Your task to perform on an android device: Show the shopping cart on ebay. Search for "dell xps" on ebay, select the first entry, add it to the cart, then select checkout. Image 0: 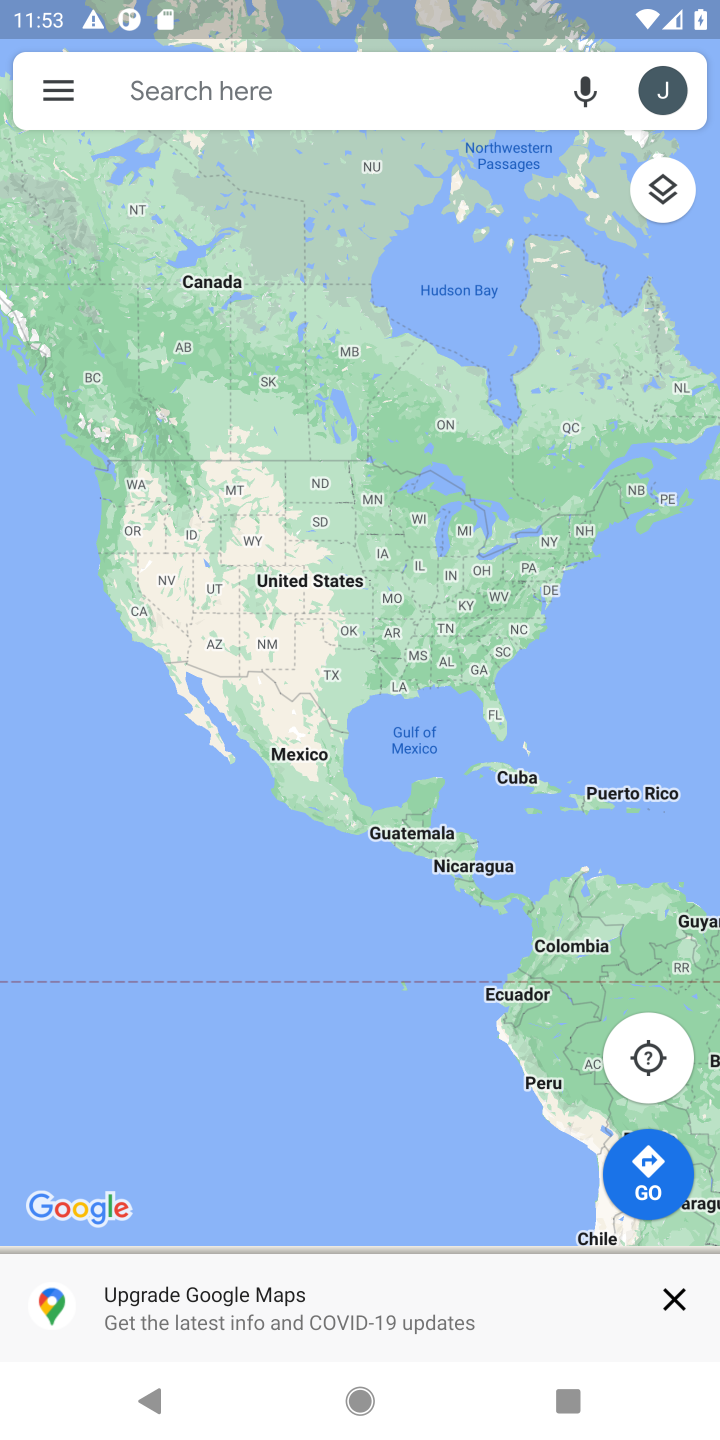
Step 0: press home button
Your task to perform on an android device: Show the shopping cart on ebay. Search for "dell xps" on ebay, select the first entry, add it to the cart, then select checkout. Image 1: 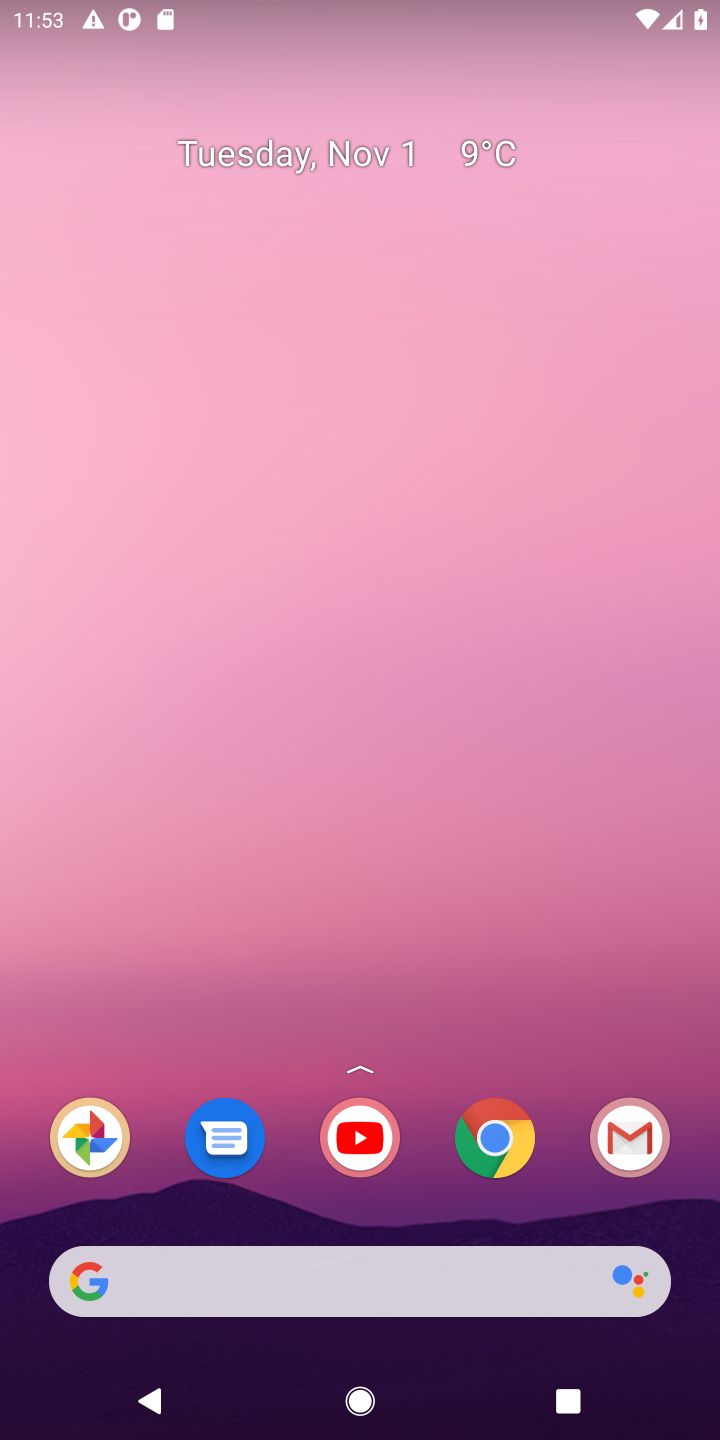
Step 1: click (399, 1279)
Your task to perform on an android device: Show the shopping cart on ebay. Search for "dell xps" on ebay, select the first entry, add it to the cart, then select checkout. Image 2: 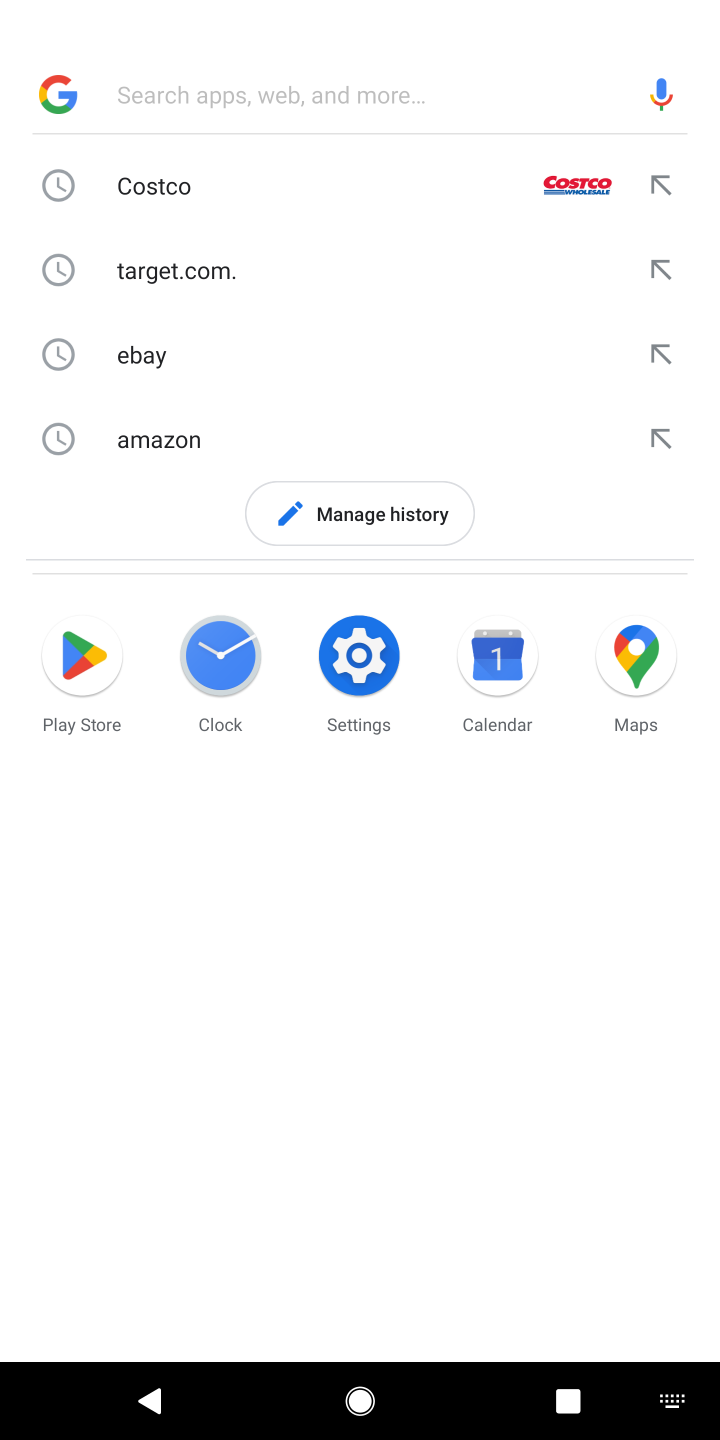
Step 2: drag from (666, 1293) to (680, 1389)
Your task to perform on an android device: Show the shopping cart on ebay. Search for "dell xps" on ebay, select the first entry, add it to the cart, then select checkout. Image 3: 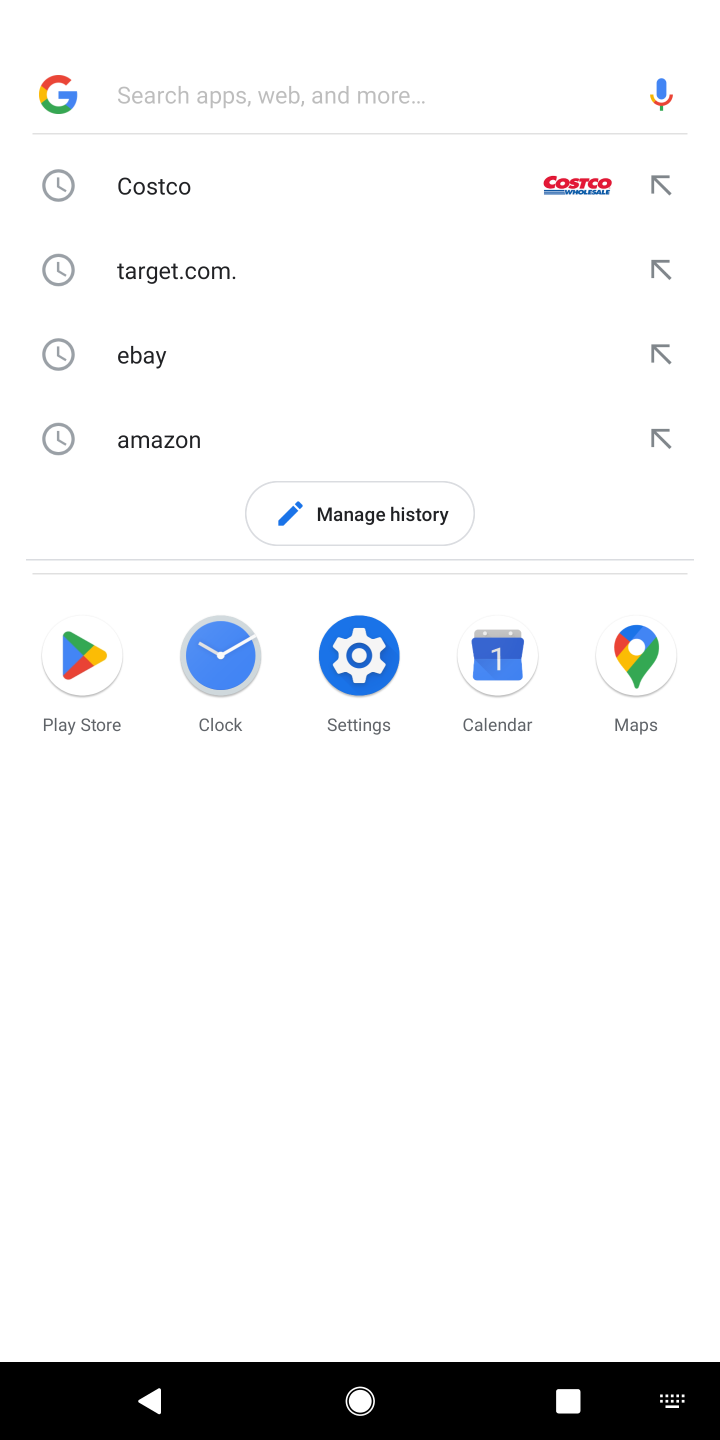
Step 3: click (139, 351)
Your task to perform on an android device: Show the shopping cart on ebay. Search for "dell xps" on ebay, select the first entry, add it to the cart, then select checkout. Image 4: 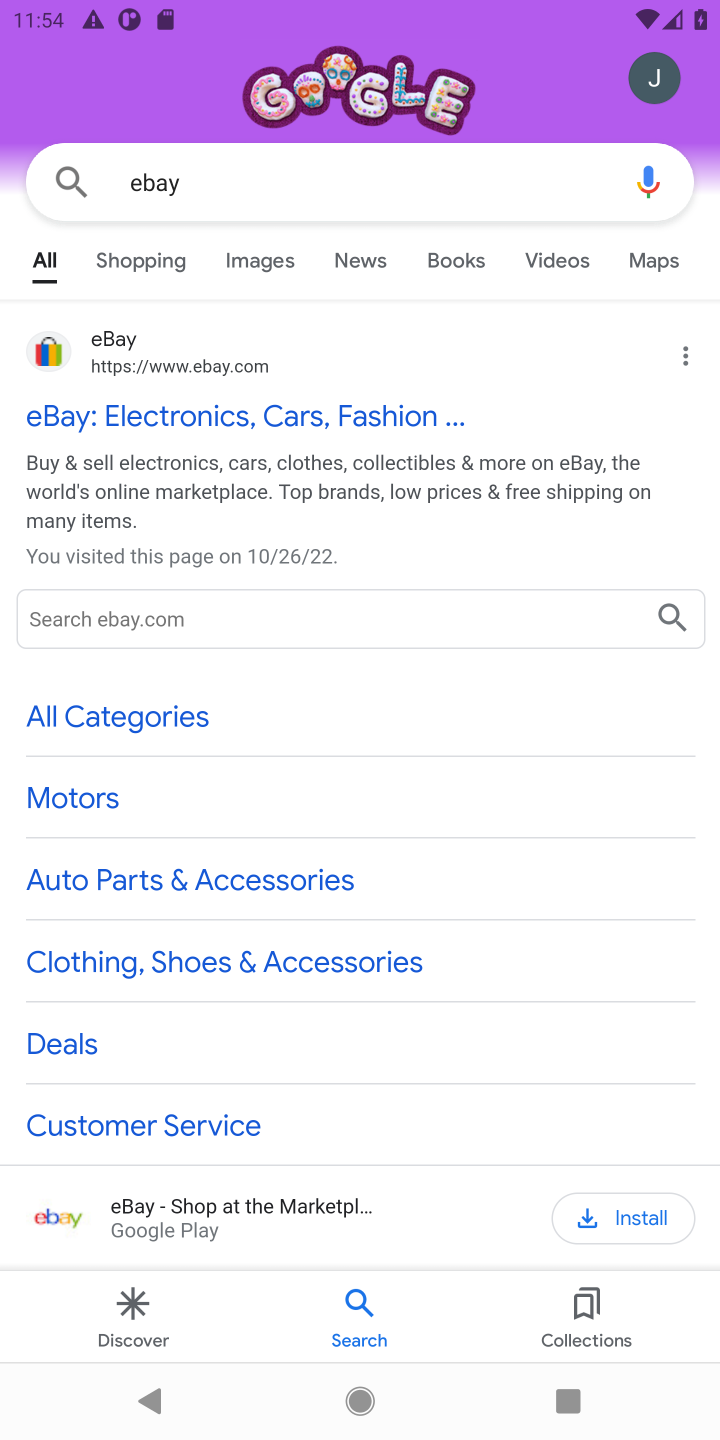
Step 4: click (166, 425)
Your task to perform on an android device: Show the shopping cart on ebay. Search for "dell xps" on ebay, select the first entry, add it to the cart, then select checkout. Image 5: 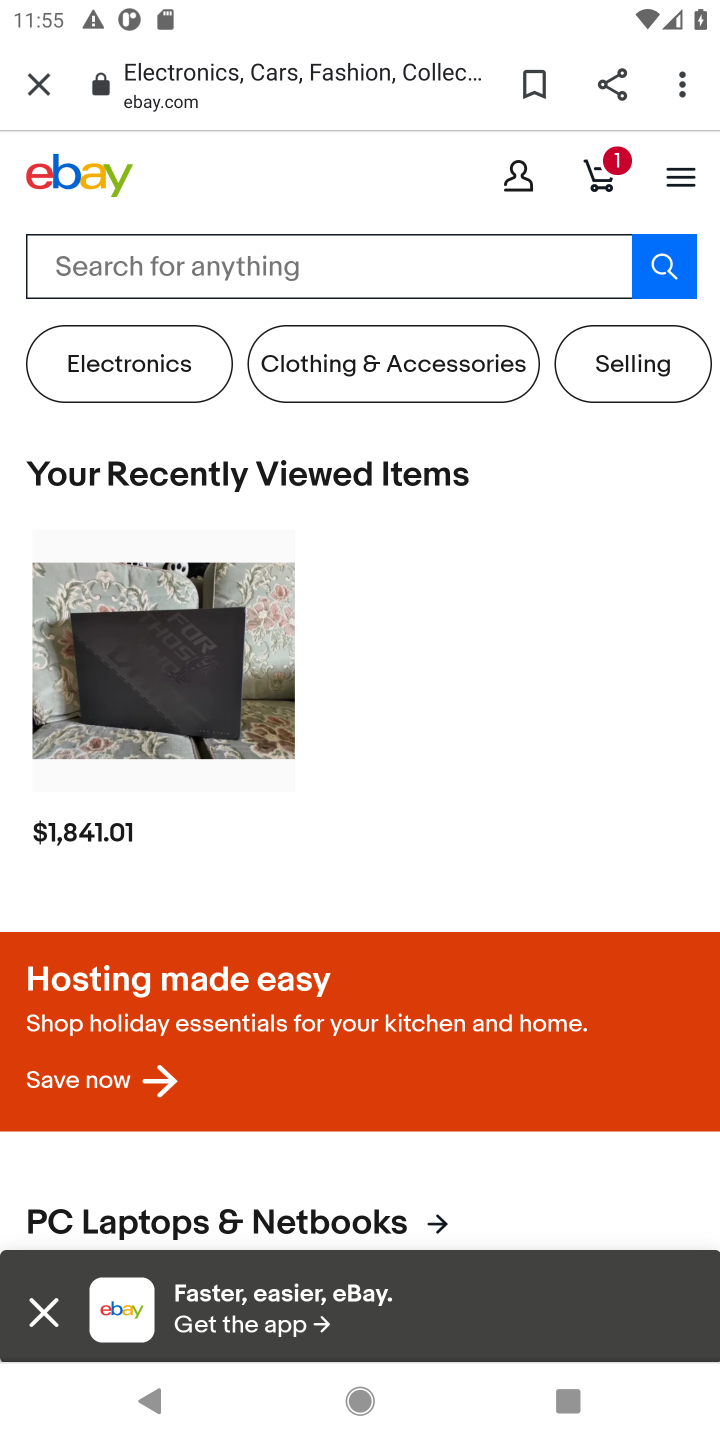
Step 5: click (285, 246)
Your task to perform on an android device: Show the shopping cart on ebay. Search for "dell xps" on ebay, select the first entry, add it to the cart, then select checkout. Image 6: 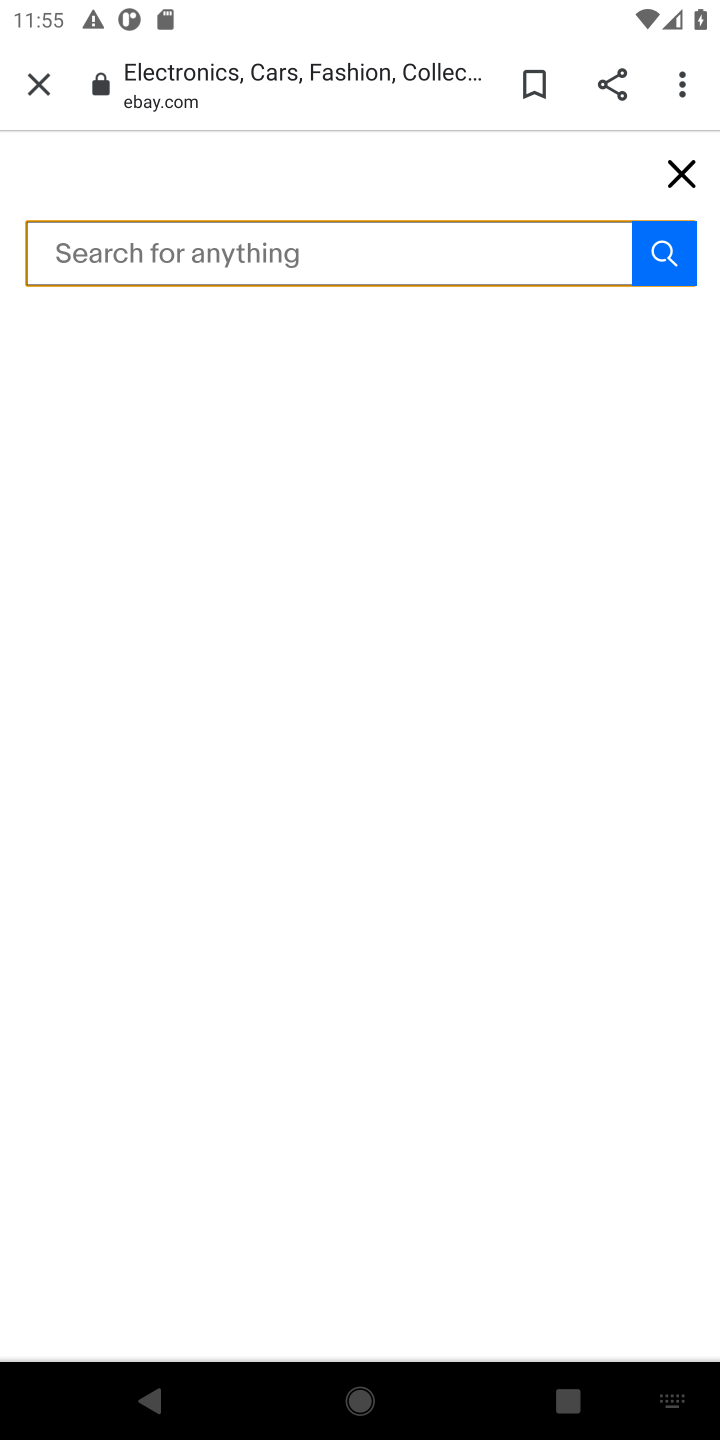
Step 6: type "dell xps"
Your task to perform on an android device: Show the shopping cart on ebay. Search for "dell xps" on ebay, select the first entry, add it to the cart, then select checkout. Image 7: 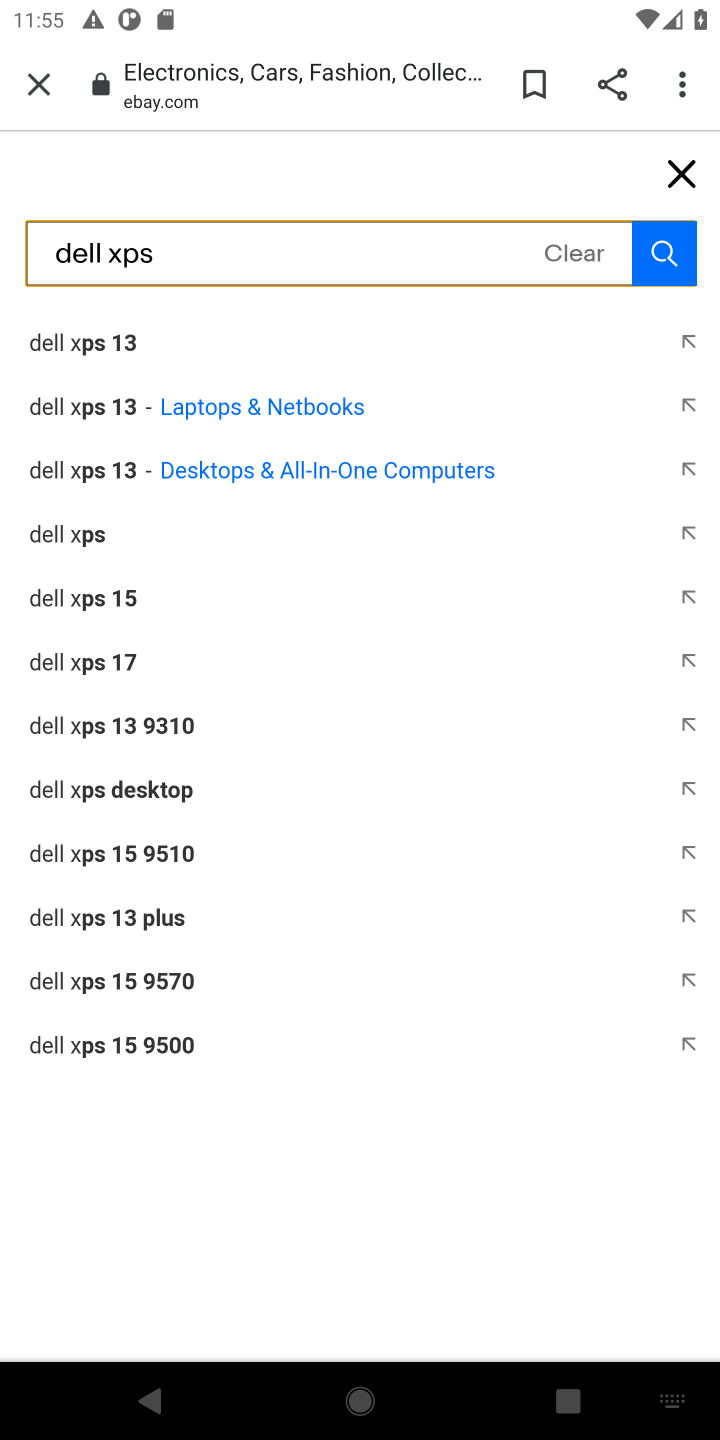
Step 7: click (98, 543)
Your task to perform on an android device: Show the shopping cart on ebay. Search for "dell xps" on ebay, select the first entry, add it to the cart, then select checkout. Image 8: 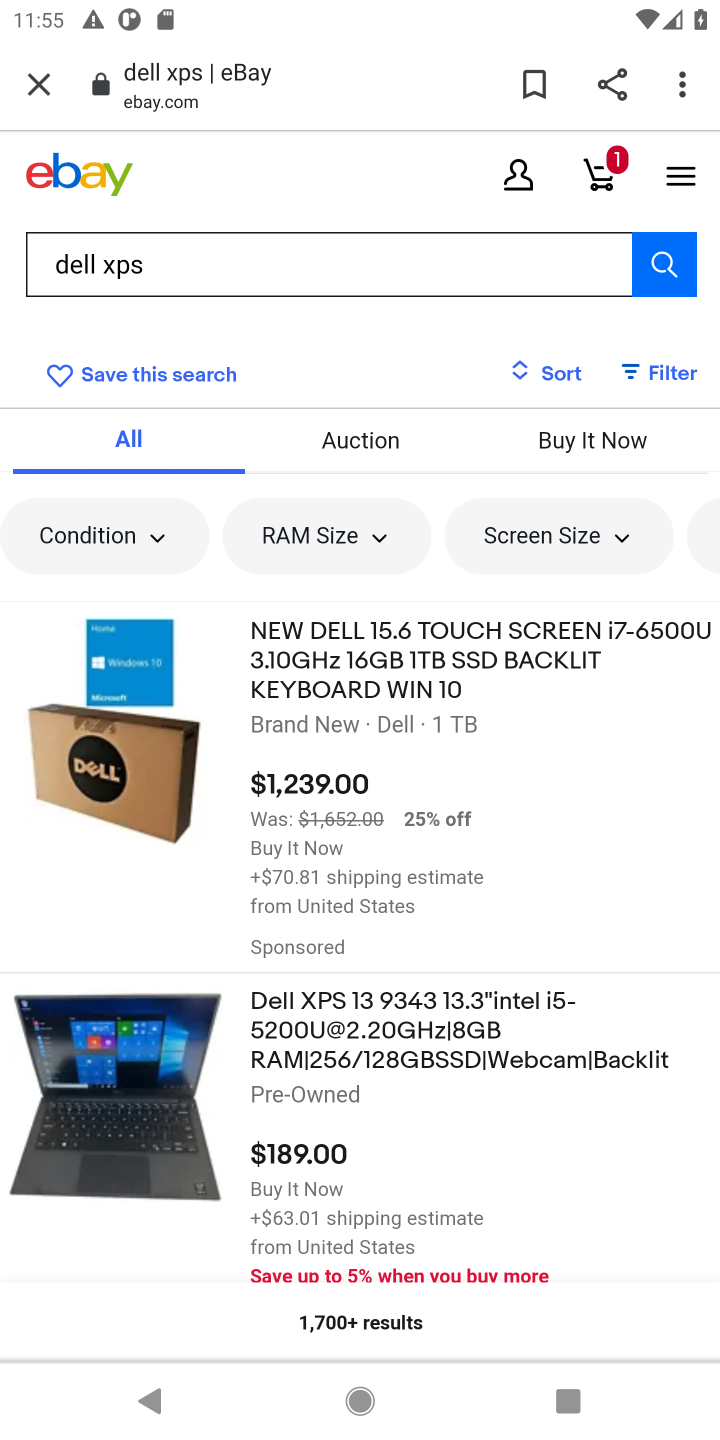
Step 8: click (452, 701)
Your task to perform on an android device: Show the shopping cart on ebay. Search for "dell xps" on ebay, select the first entry, add it to the cart, then select checkout. Image 9: 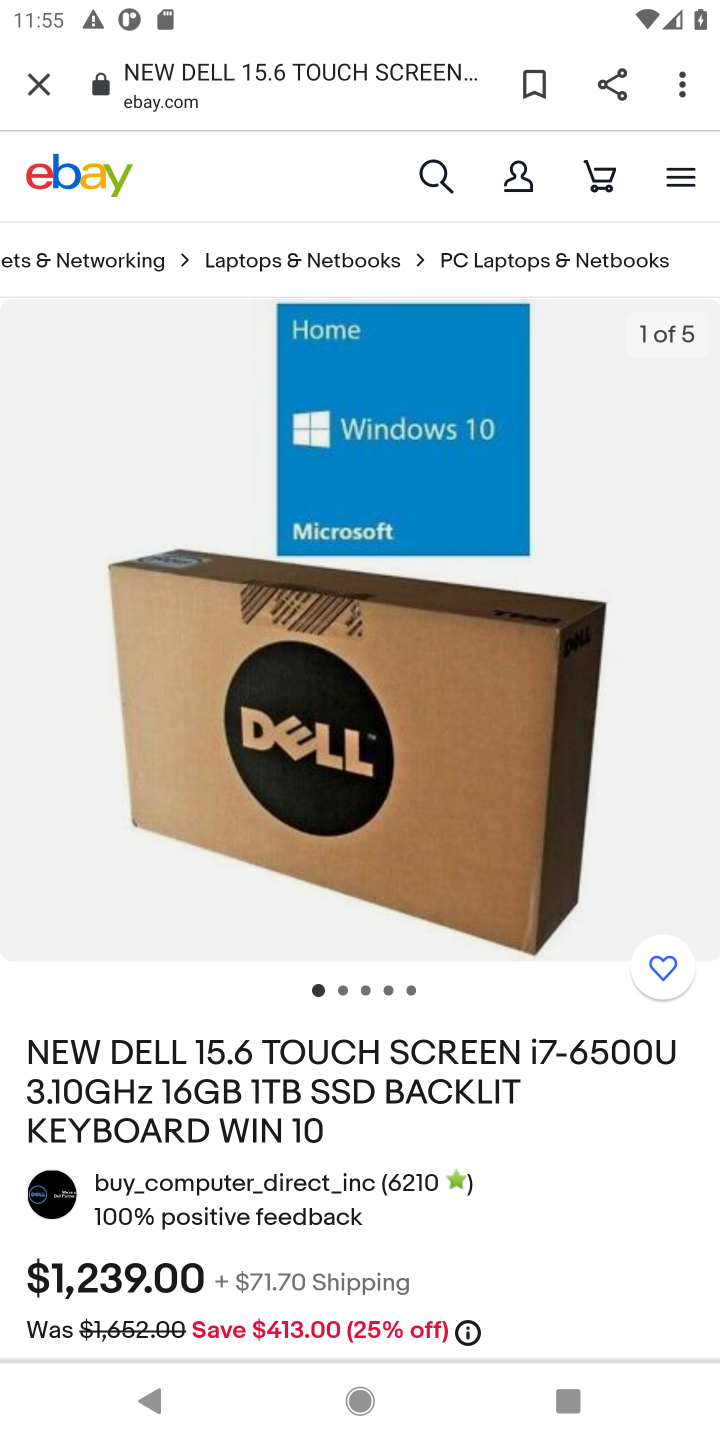
Step 9: drag from (534, 929) to (531, 481)
Your task to perform on an android device: Show the shopping cart on ebay. Search for "dell xps" on ebay, select the first entry, add it to the cart, then select checkout. Image 10: 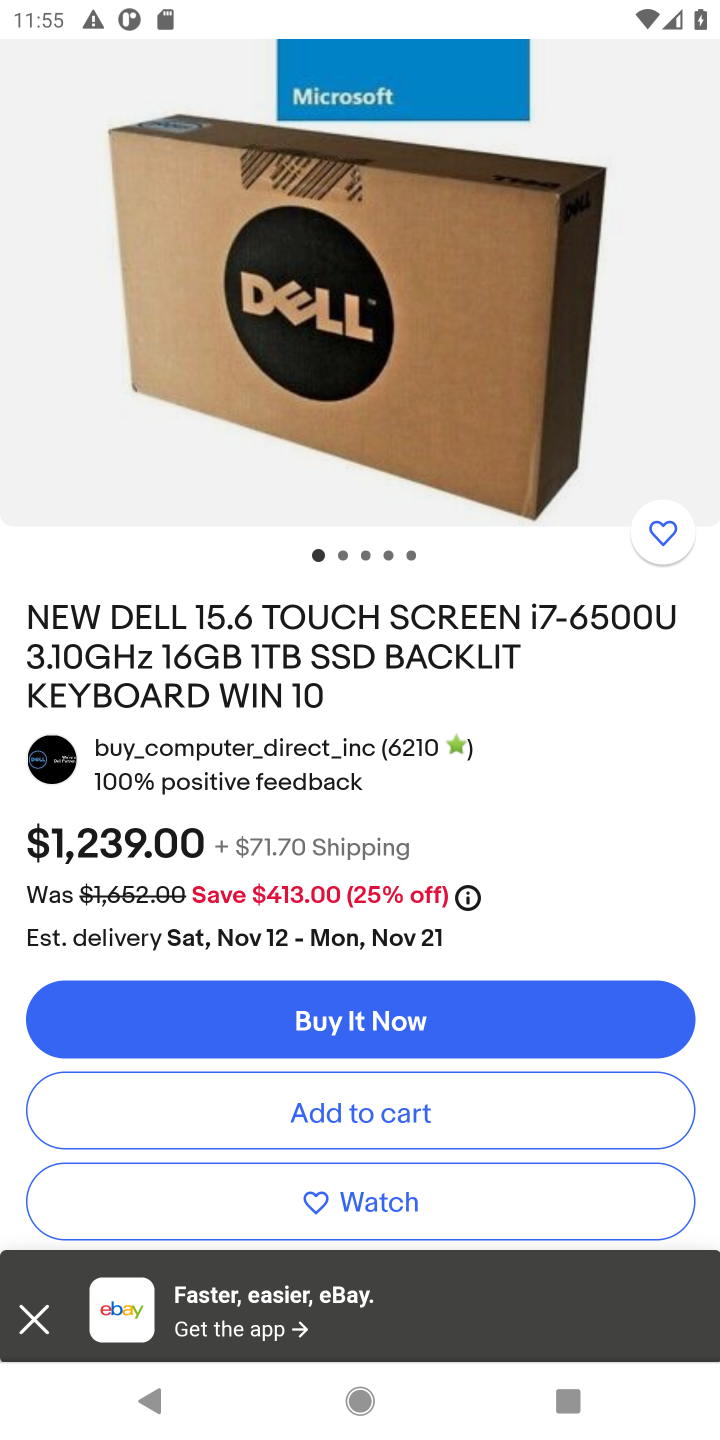
Step 10: drag from (594, 1153) to (548, 702)
Your task to perform on an android device: Show the shopping cart on ebay. Search for "dell xps" on ebay, select the first entry, add it to the cart, then select checkout. Image 11: 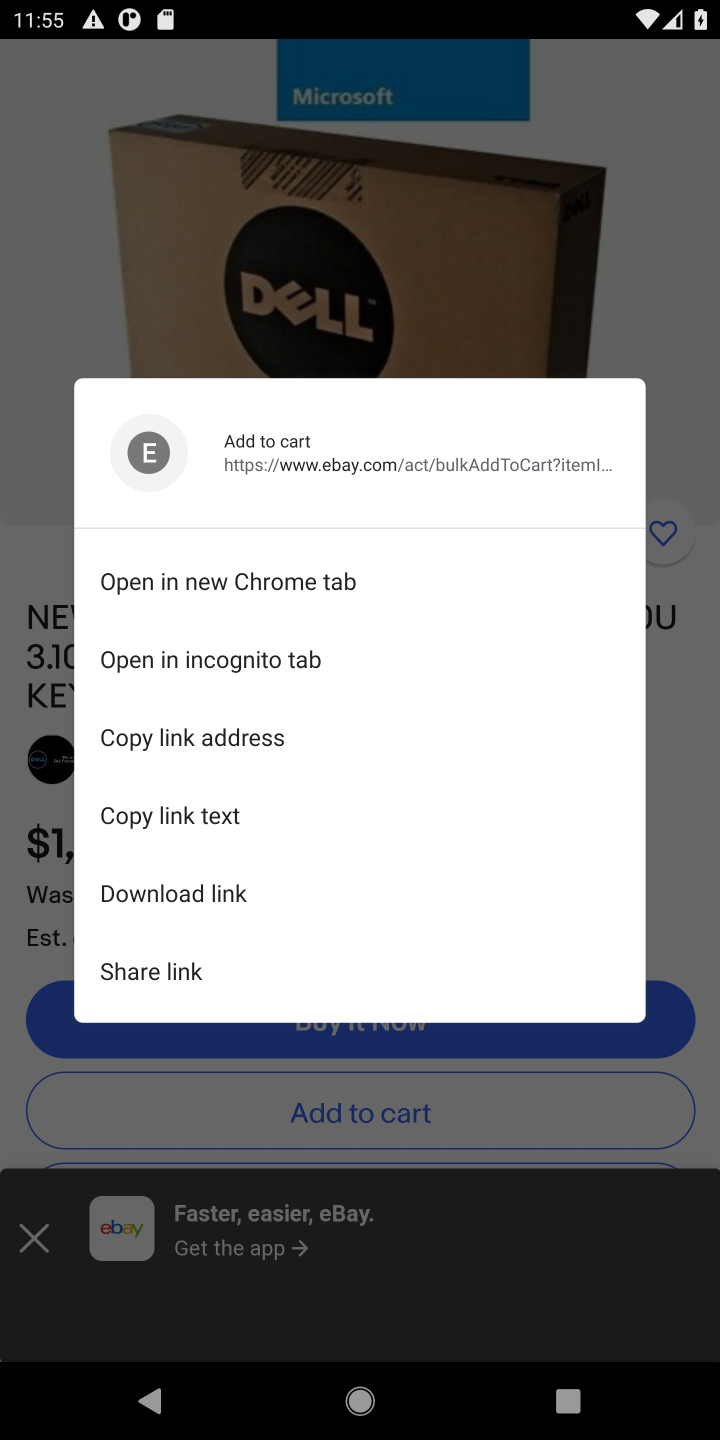
Step 11: click (551, 266)
Your task to perform on an android device: Show the shopping cart on ebay. Search for "dell xps" on ebay, select the first entry, add it to the cart, then select checkout. Image 12: 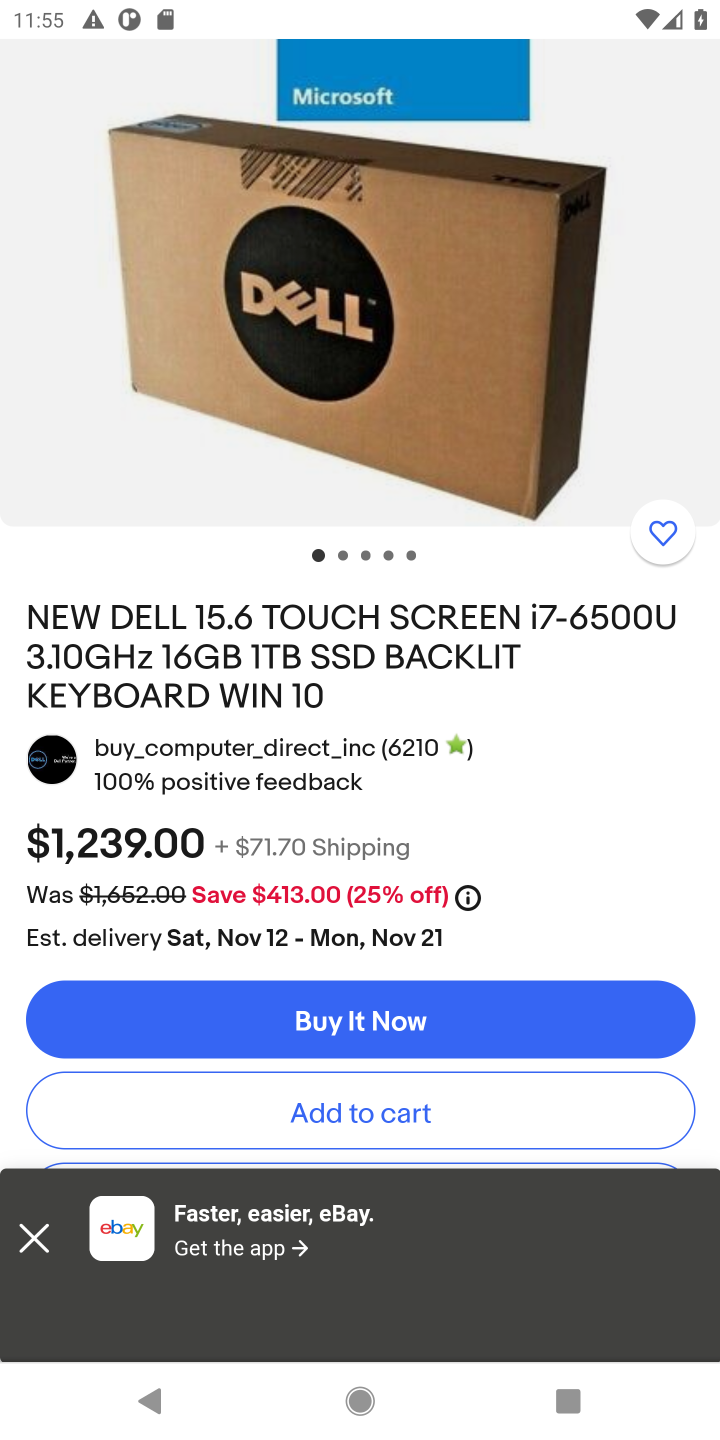
Step 12: click (405, 1086)
Your task to perform on an android device: Show the shopping cart on ebay. Search for "dell xps" on ebay, select the first entry, add it to the cart, then select checkout. Image 13: 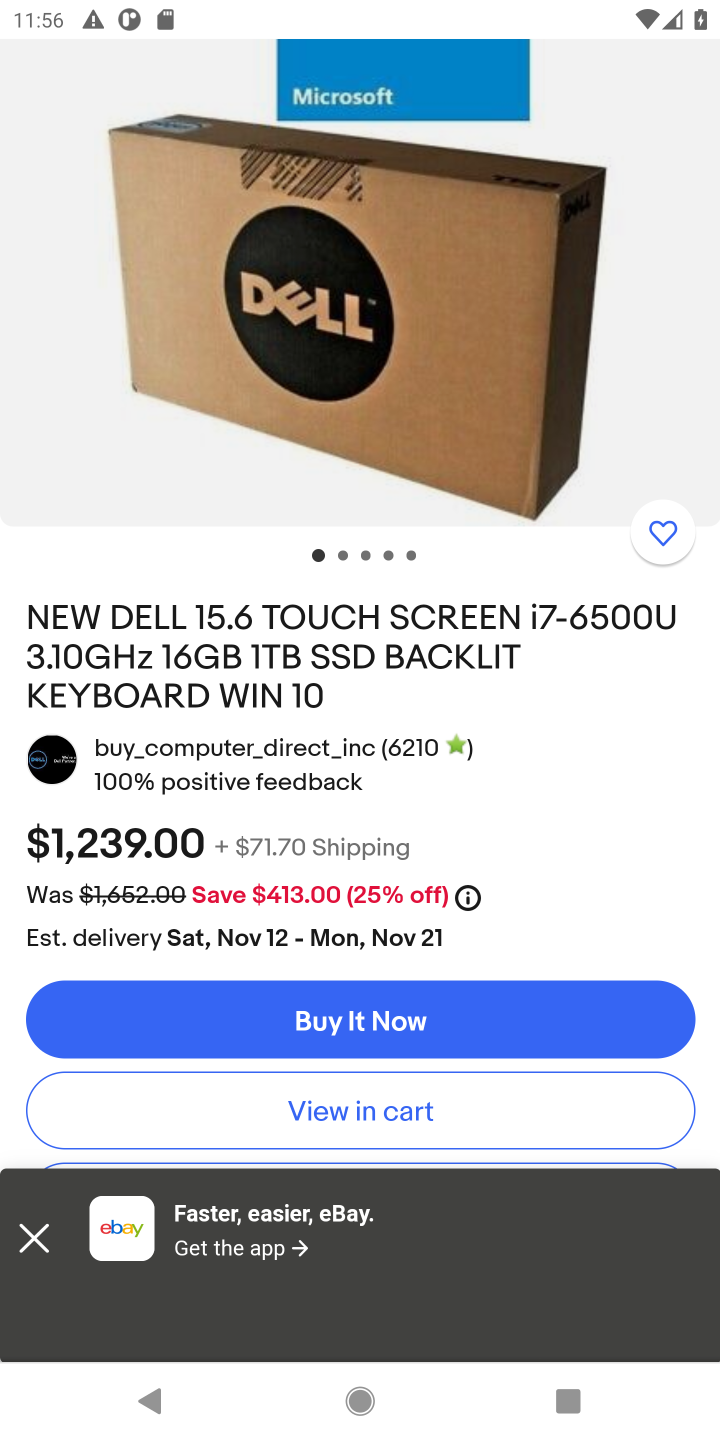
Step 13: task complete